Your task to perform on an android device: turn on the 24-hour format for clock Image 0: 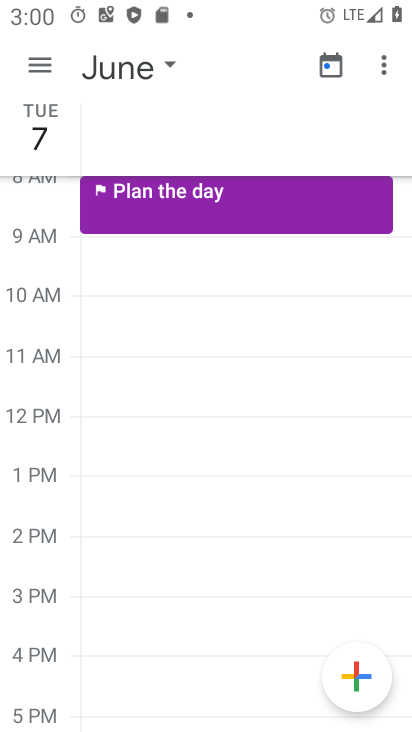
Step 0: press back button
Your task to perform on an android device: turn on the 24-hour format for clock Image 1: 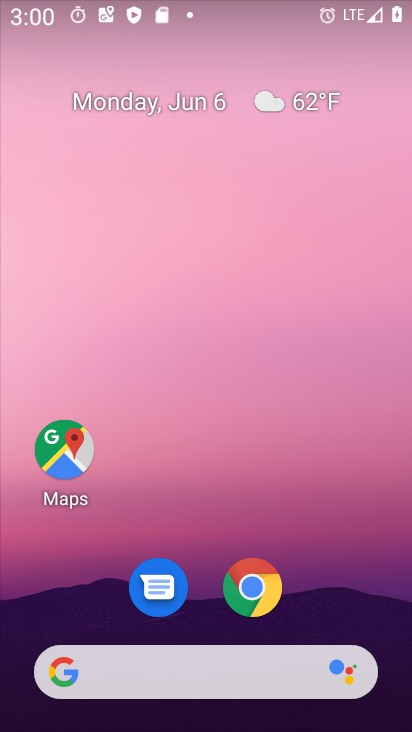
Step 1: drag from (313, 521) to (282, 43)
Your task to perform on an android device: turn on the 24-hour format for clock Image 2: 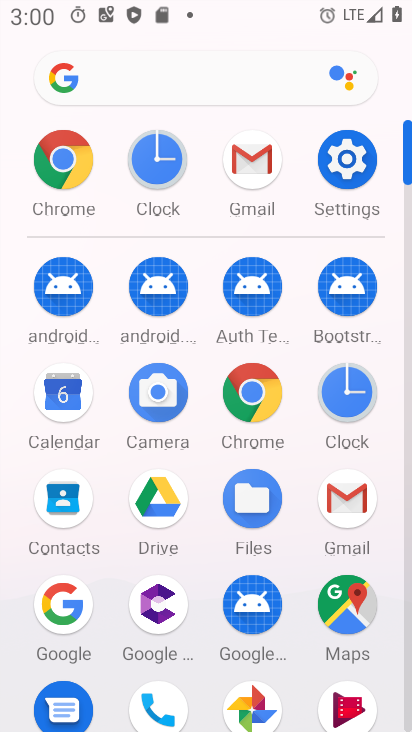
Step 2: click (346, 390)
Your task to perform on an android device: turn on the 24-hour format for clock Image 3: 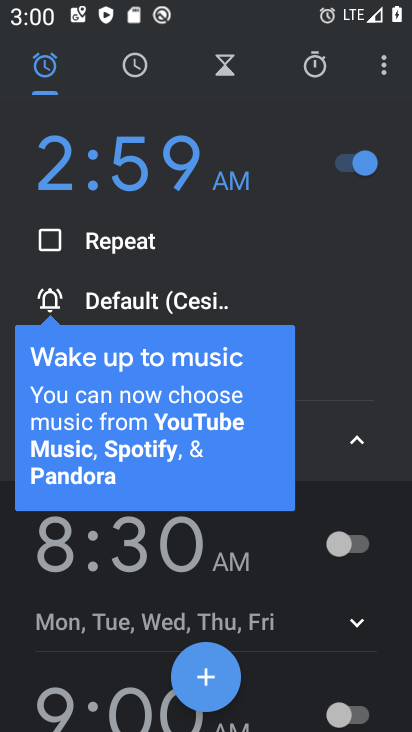
Step 3: drag from (382, 65) to (261, 132)
Your task to perform on an android device: turn on the 24-hour format for clock Image 4: 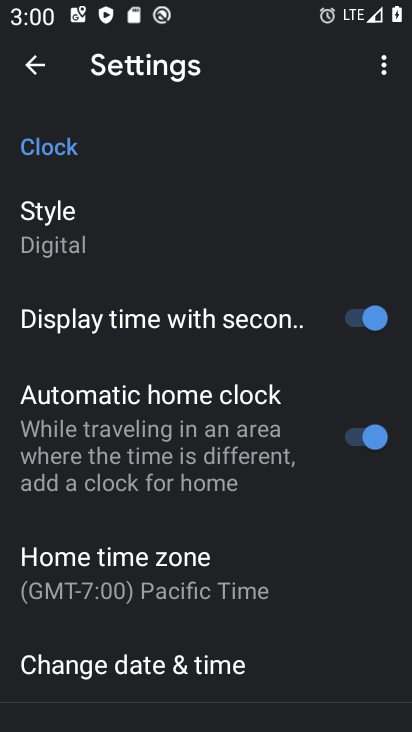
Step 4: click (203, 662)
Your task to perform on an android device: turn on the 24-hour format for clock Image 5: 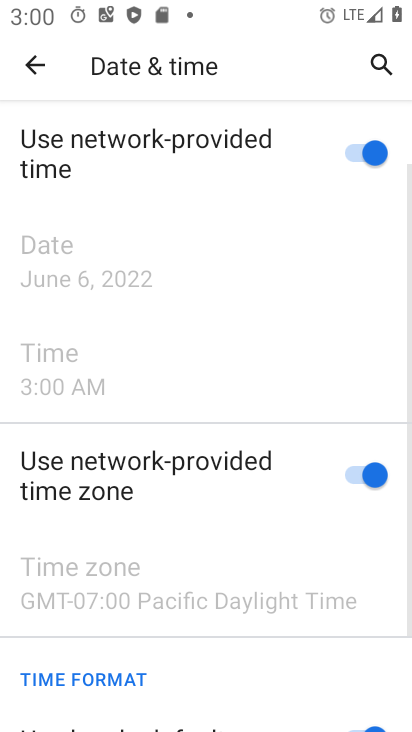
Step 5: drag from (226, 568) to (257, 163)
Your task to perform on an android device: turn on the 24-hour format for clock Image 6: 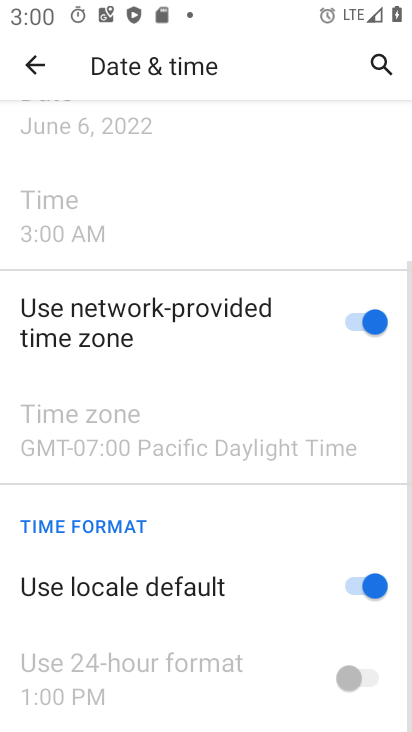
Step 6: drag from (205, 584) to (221, 251)
Your task to perform on an android device: turn on the 24-hour format for clock Image 7: 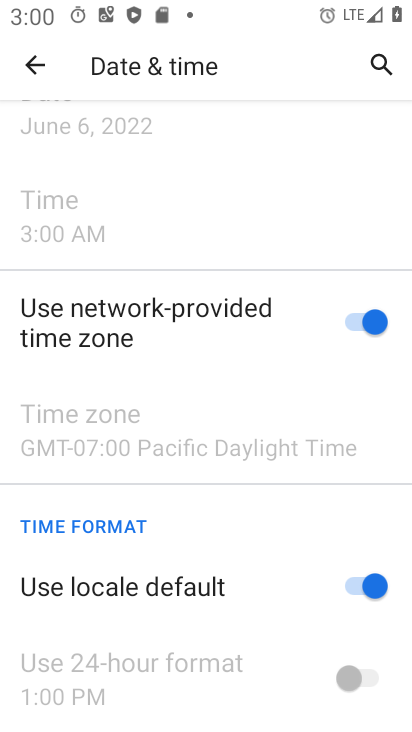
Step 7: click (365, 584)
Your task to perform on an android device: turn on the 24-hour format for clock Image 8: 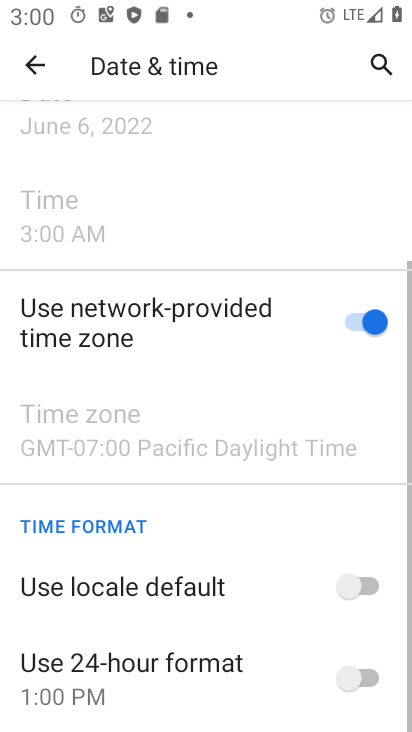
Step 8: click (357, 671)
Your task to perform on an android device: turn on the 24-hour format for clock Image 9: 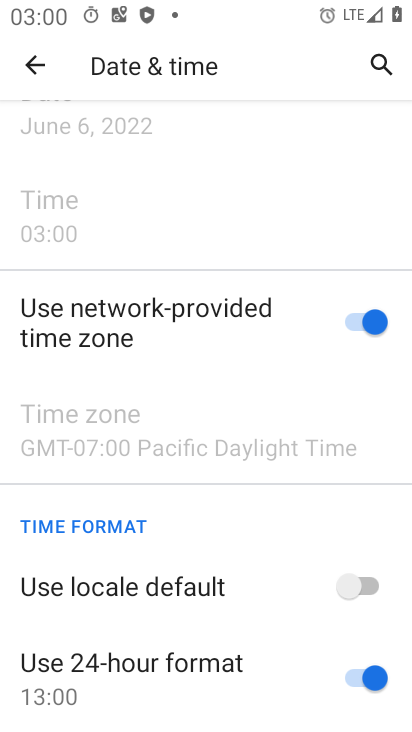
Step 9: task complete